Your task to perform on an android device: manage bookmarks in the chrome app Image 0: 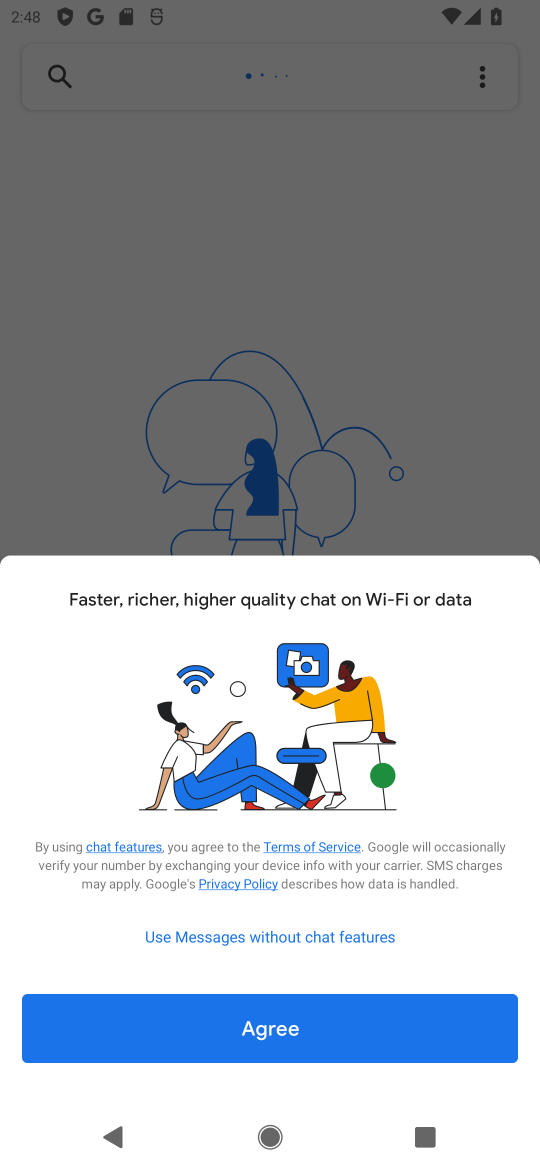
Step 0: press home button
Your task to perform on an android device: manage bookmarks in the chrome app Image 1: 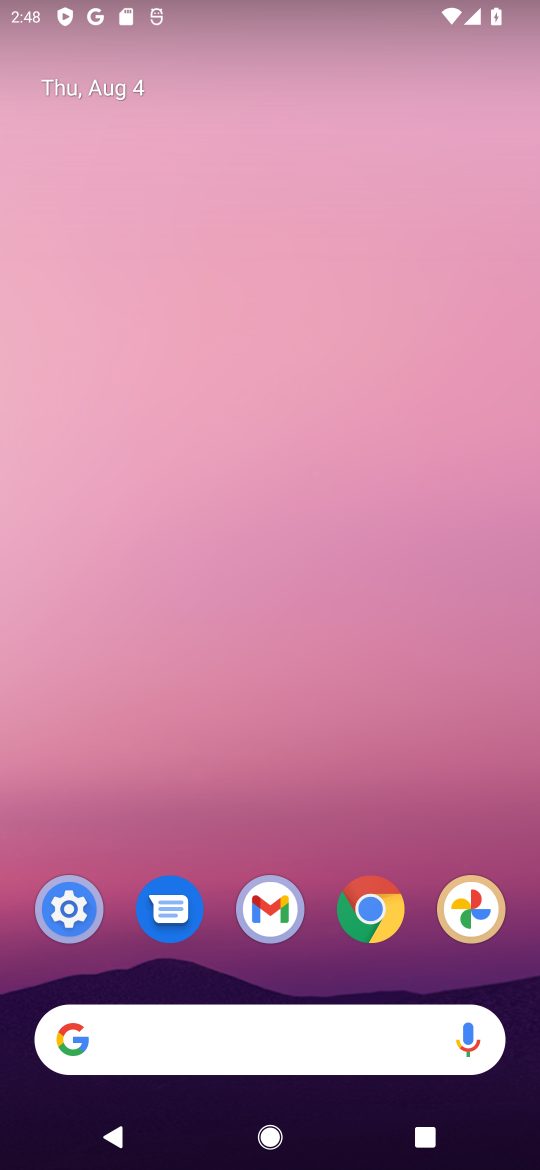
Step 1: click (385, 905)
Your task to perform on an android device: manage bookmarks in the chrome app Image 2: 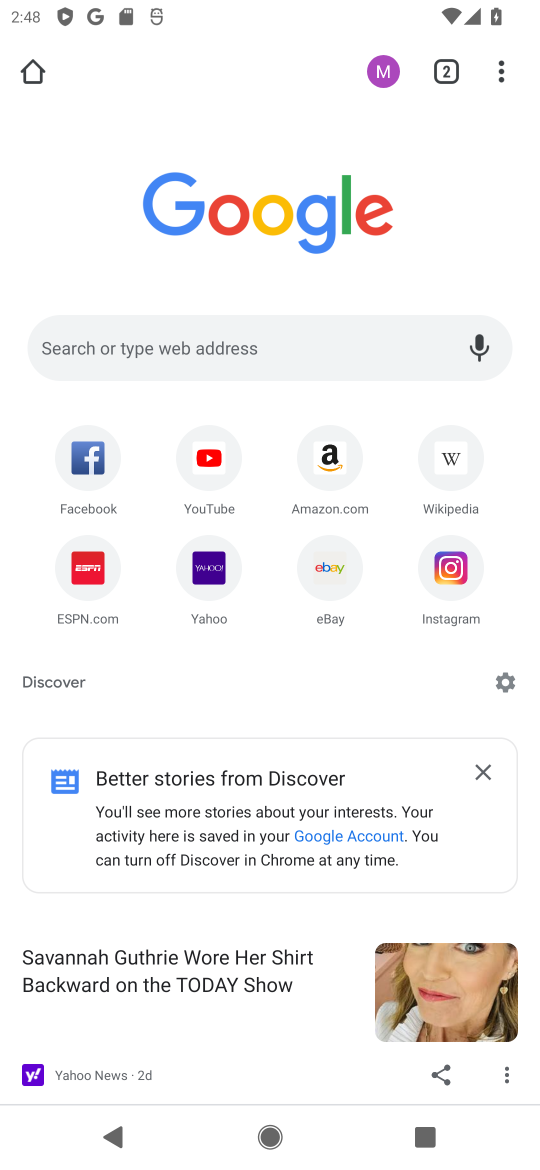
Step 2: drag from (501, 66) to (344, 495)
Your task to perform on an android device: manage bookmarks in the chrome app Image 3: 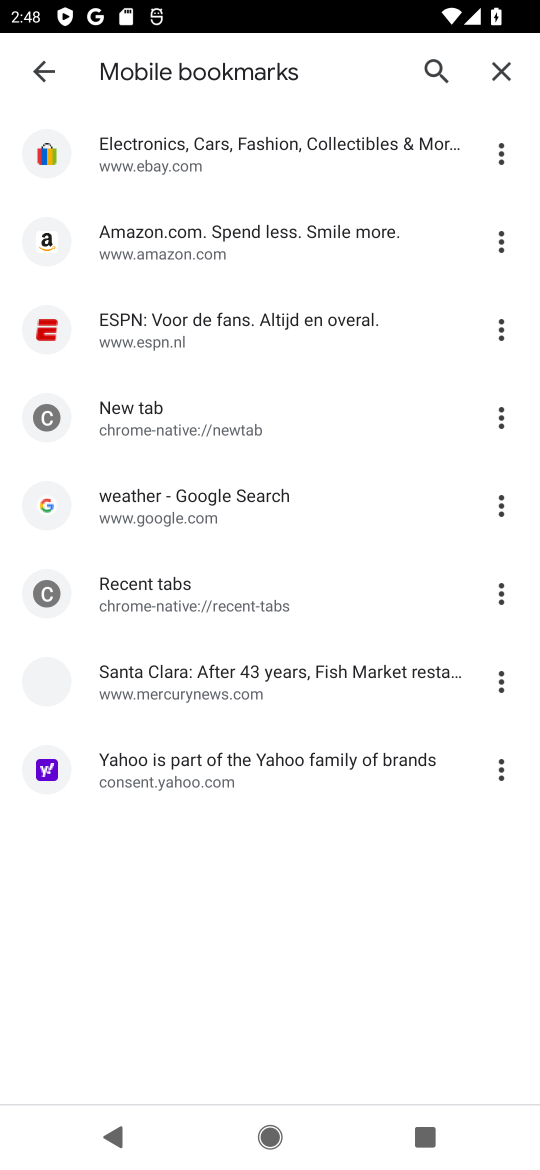
Step 3: click (500, 160)
Your task to perform on an android device: manage bookmarks in the chrome app Image 4: 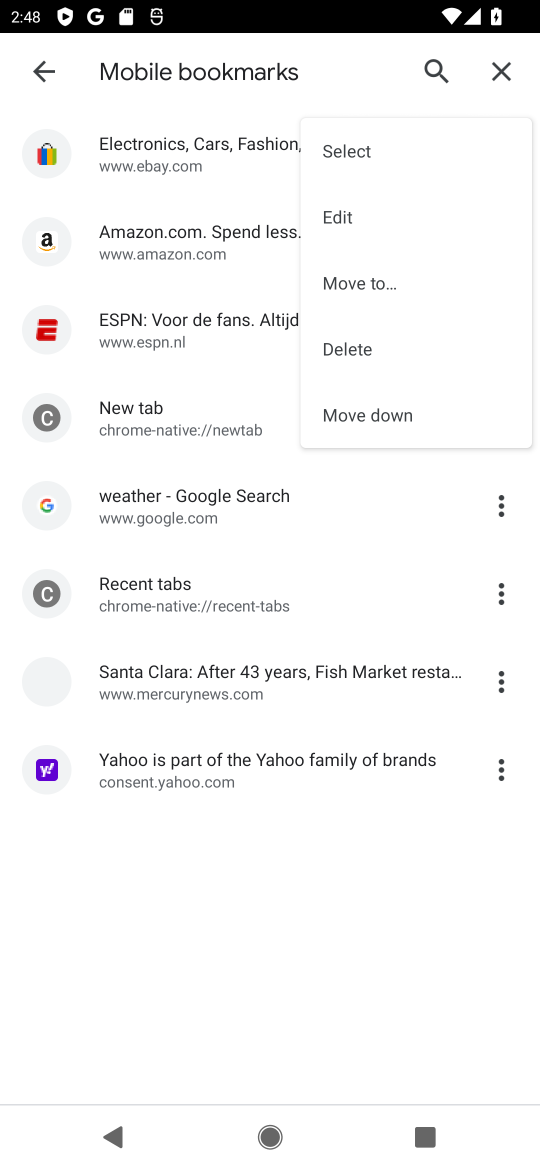
Step 4: click (356, 412)
Your task to perform on an android device: manage bookmarks in the chrome app Image 5: 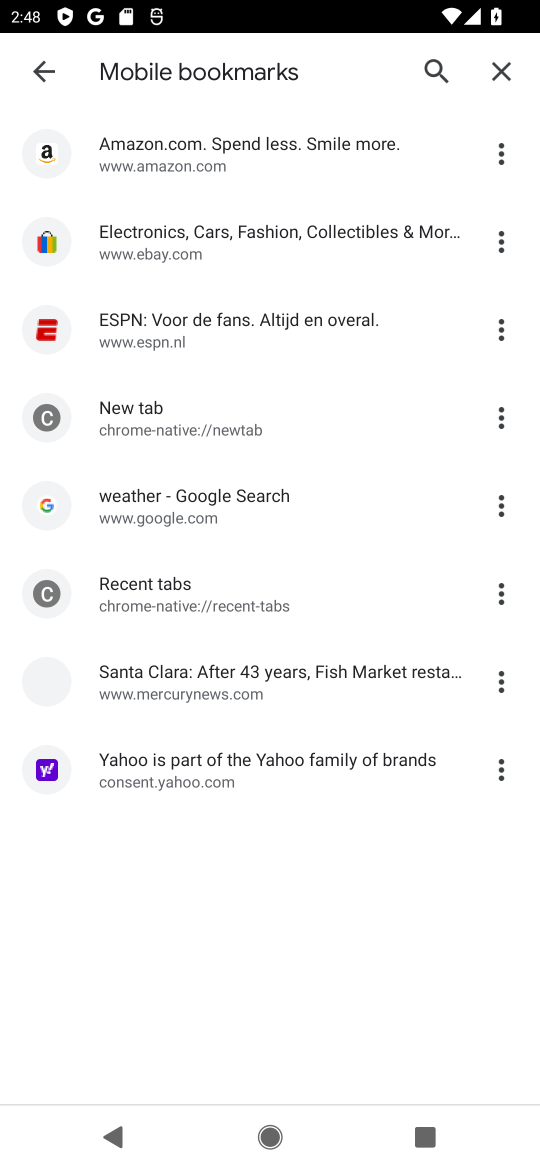
Step 5: task complete